Your task to perform on an android device: Open the calendar app, open the side menu, and click the "Day" option Image 0: 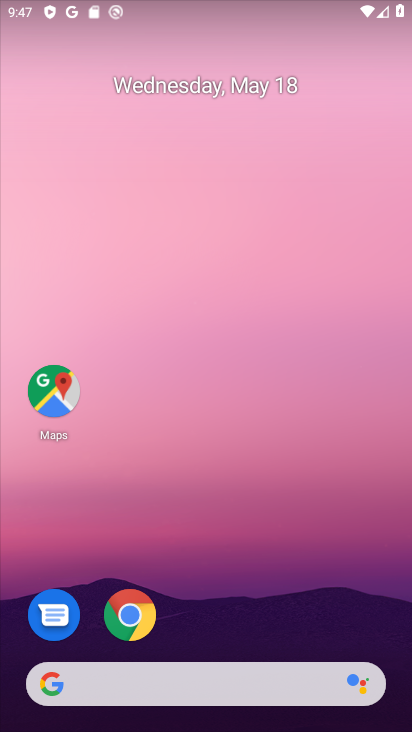
Step 0: drag from (274, 628) to (298, 128)
Your task to perform on an android device: Open the calendar app, open the side menu, and click the "Day" option Image 1: 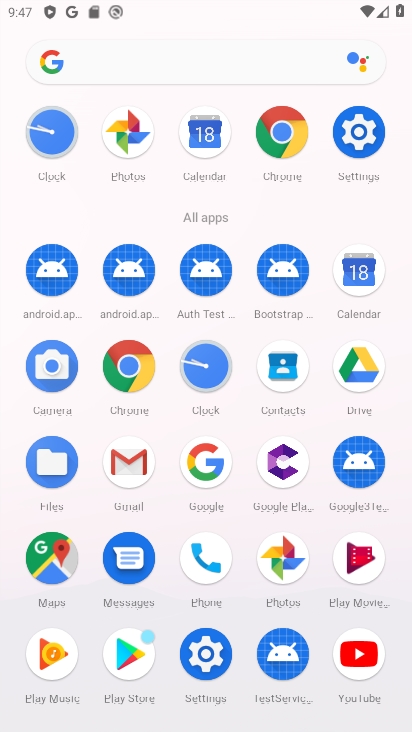
Step 1: click (276, 143)
Your task to perform on an android device: Open the calendar app, open the side menu, and click the "Day" option Image 2: 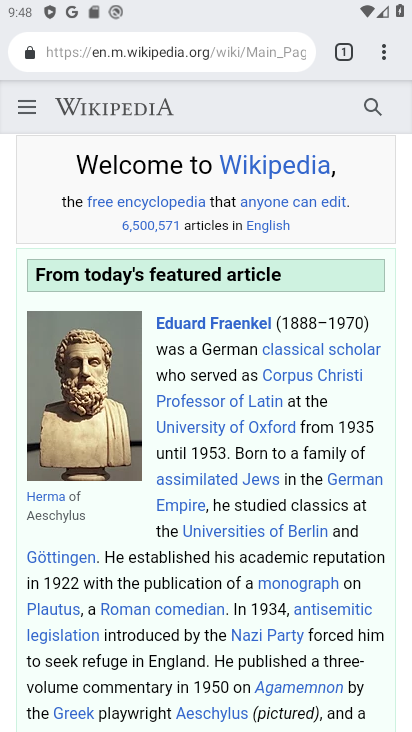
Step 2: press home button
Your task to perform on an android device: Open the calendar app, open the side menu, and click the "Day" option Image 3: 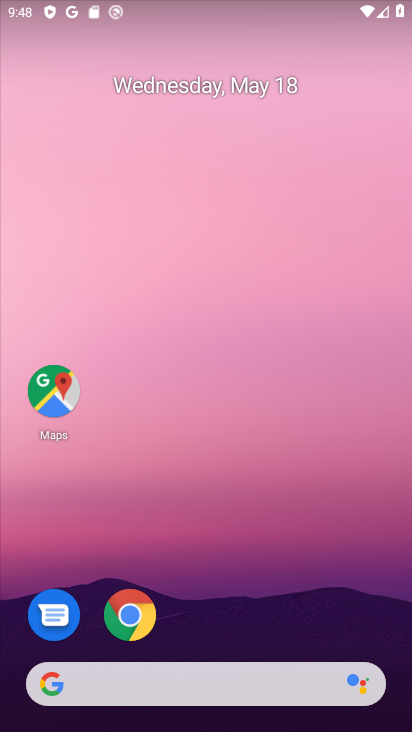
Step 3: drag from (284, 600) to (340, 0)
Your task to perform on an android device: Open the calendar app, open the side menu, and click the "Day" option Image 4: 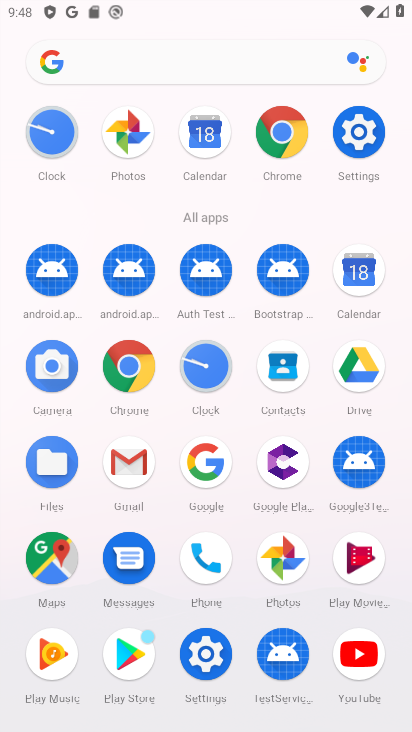
Step 4: click (360, 311)
Your task to perform on an android device: Open the calendar app, open the side menu, and click the "Day" option Image 5: 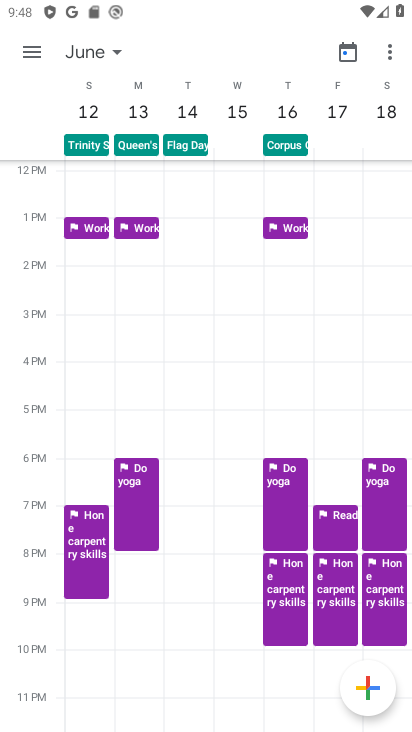
Step 5: click (26, 51)
Your task to perform on an android device: Open the calendar app, open the side menu, and click the "Day" option Image 6: 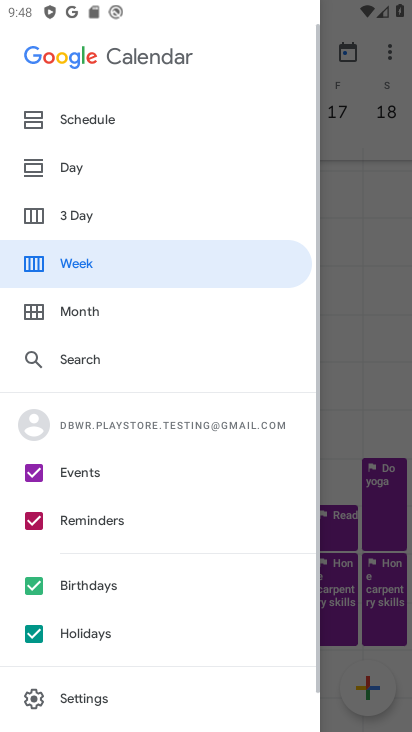
Step 6: click (84, 169)
Your task to perform on an android device: Open the calendar app, open the side menu, and click the "Day" option Image 7: 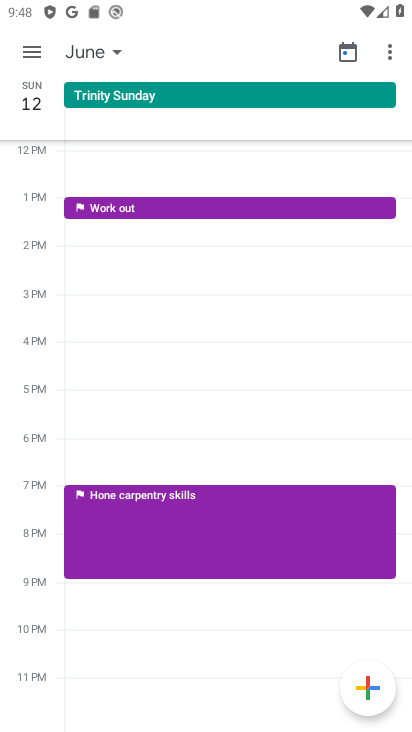
Step 7: task complete